Your task to perform on an android device: Add "razer blackwidow" to the cart on bestbuy Image 0: 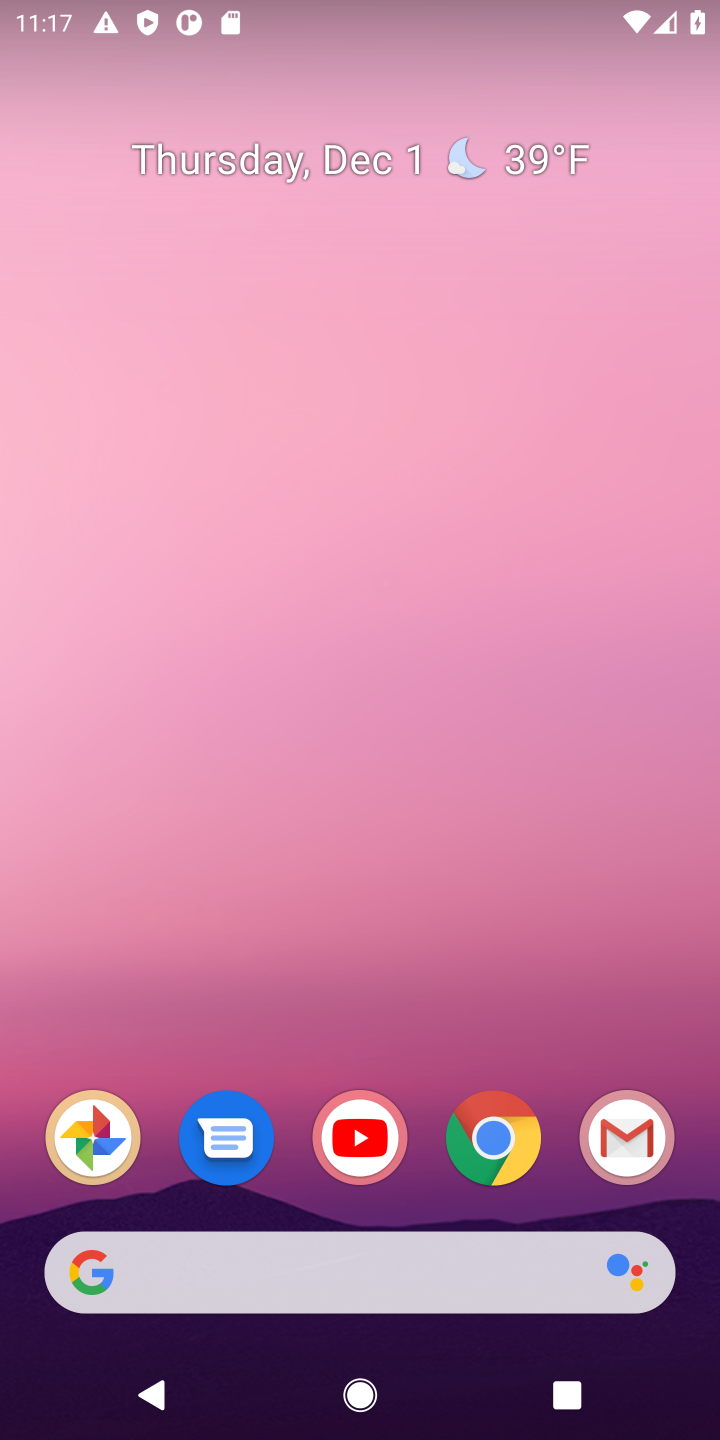
Step 0: drag from (326, 1116) to (436, 148)
Your task to perform on an android device: Add "razer blackwidow" to the cart on bestbuy Image 1: 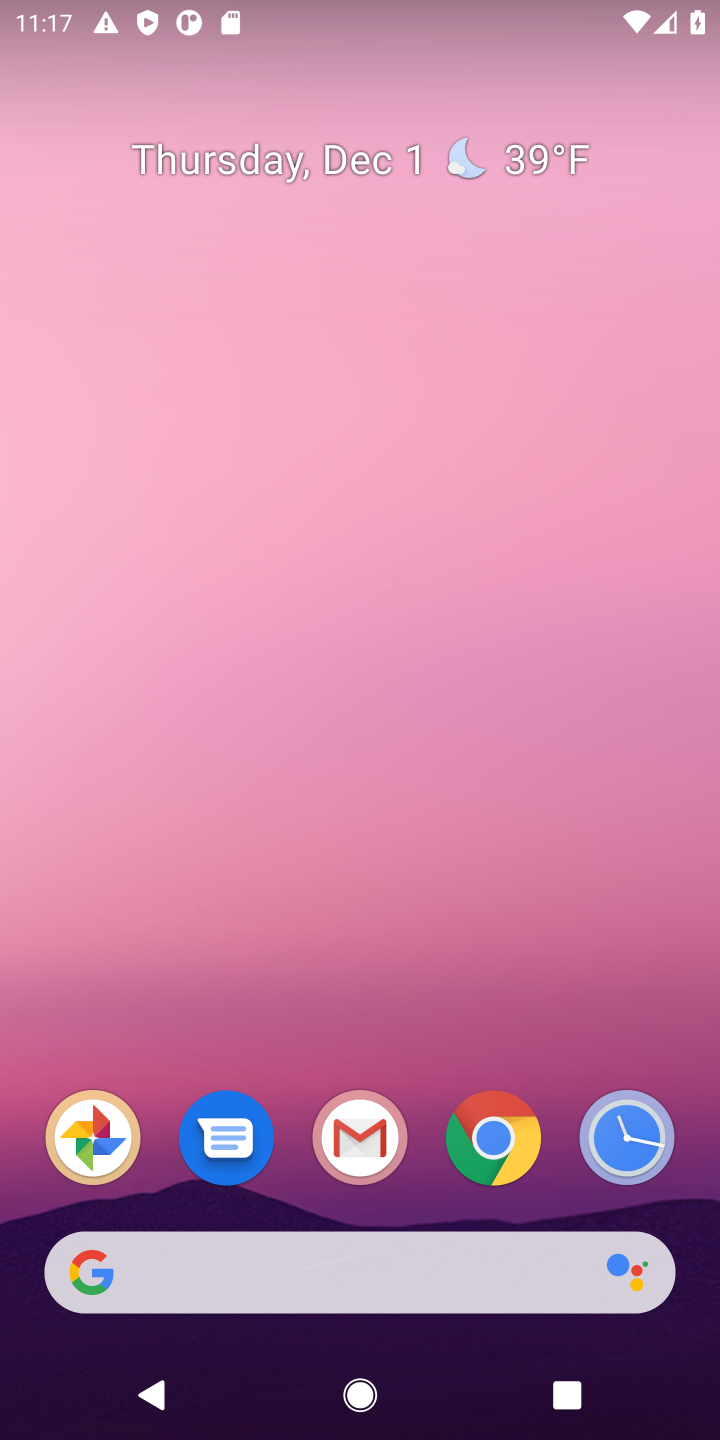
Step 1: drag from (402, 1053) to (466, 34)
Your task to perform on an android device: Add "razer blackwidow" to the cart on bestbuy Image 2: 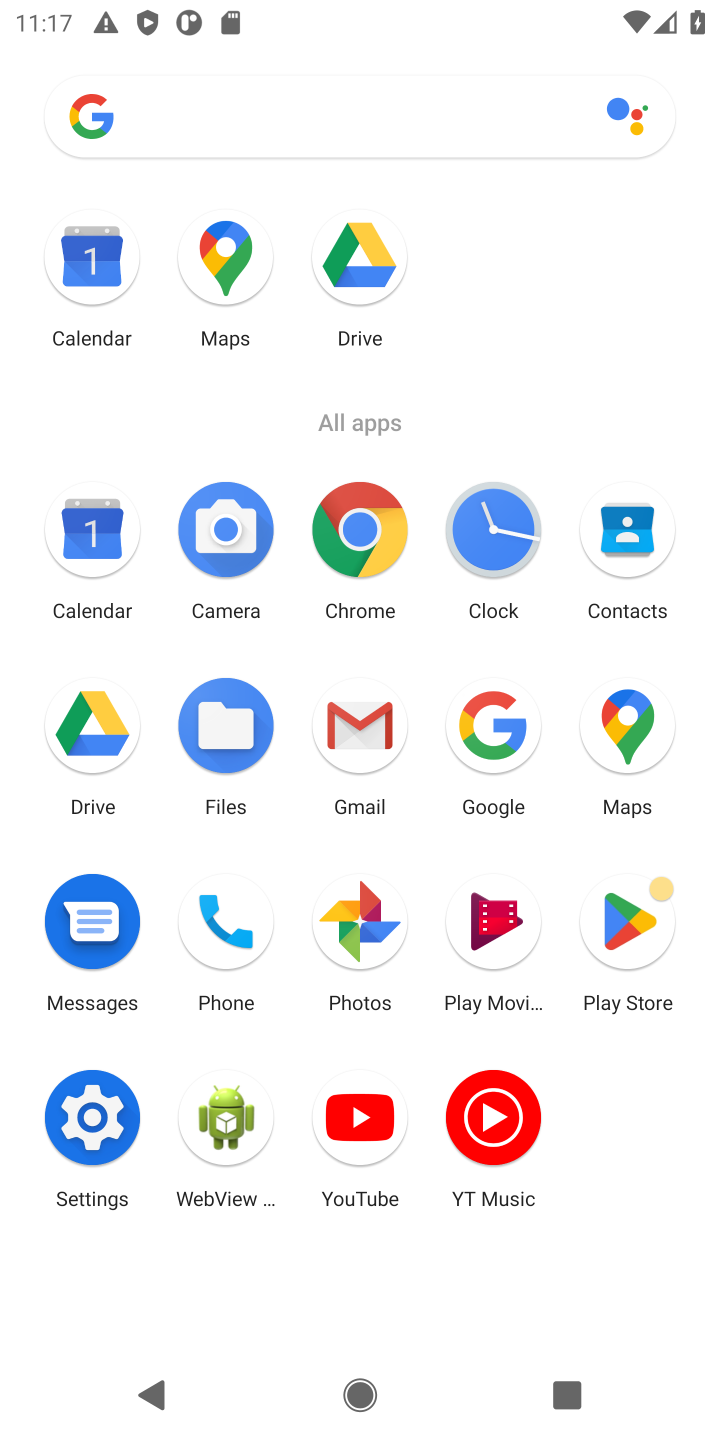
Step 2: click (516, 729)
Your task to perform on an android device: Add "razer blackwidow" to the cart on bestbuy Image 3: 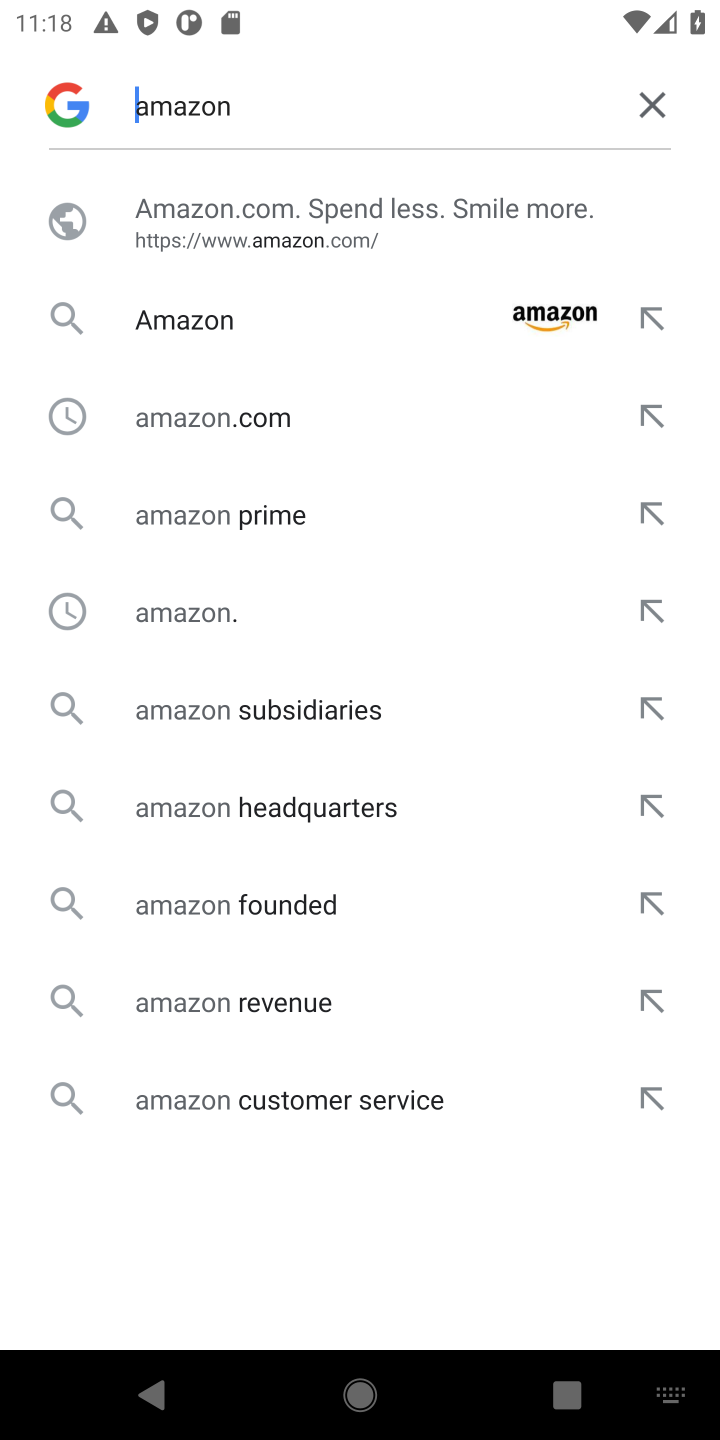
Step 3: click (654, 98)
Your task to perform on an android device: Add "razer blackwidow" to the cart on bestbuy Image 4: 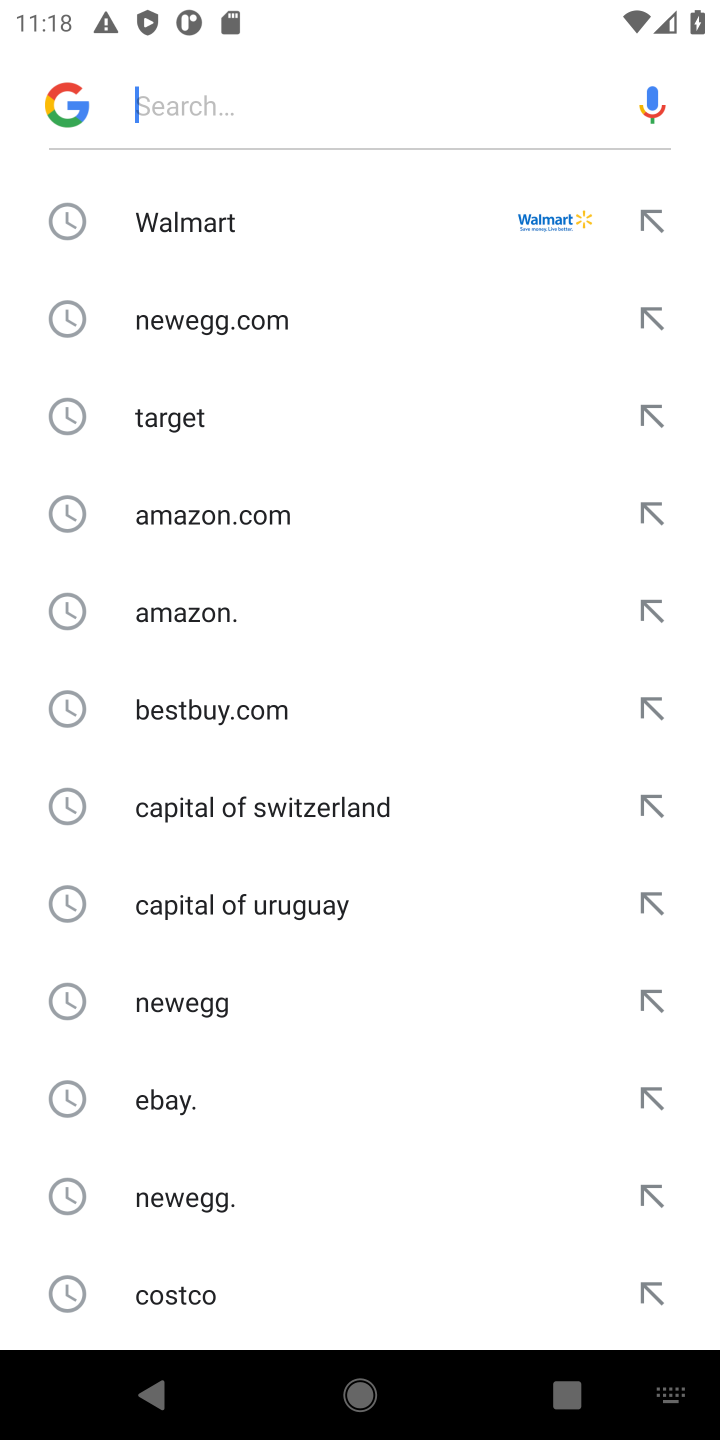
Step 4: type "razer blackwidow"
Your task to perform on an android device: Add "razer blackwidow" to the cart on bestbuy Image 5: 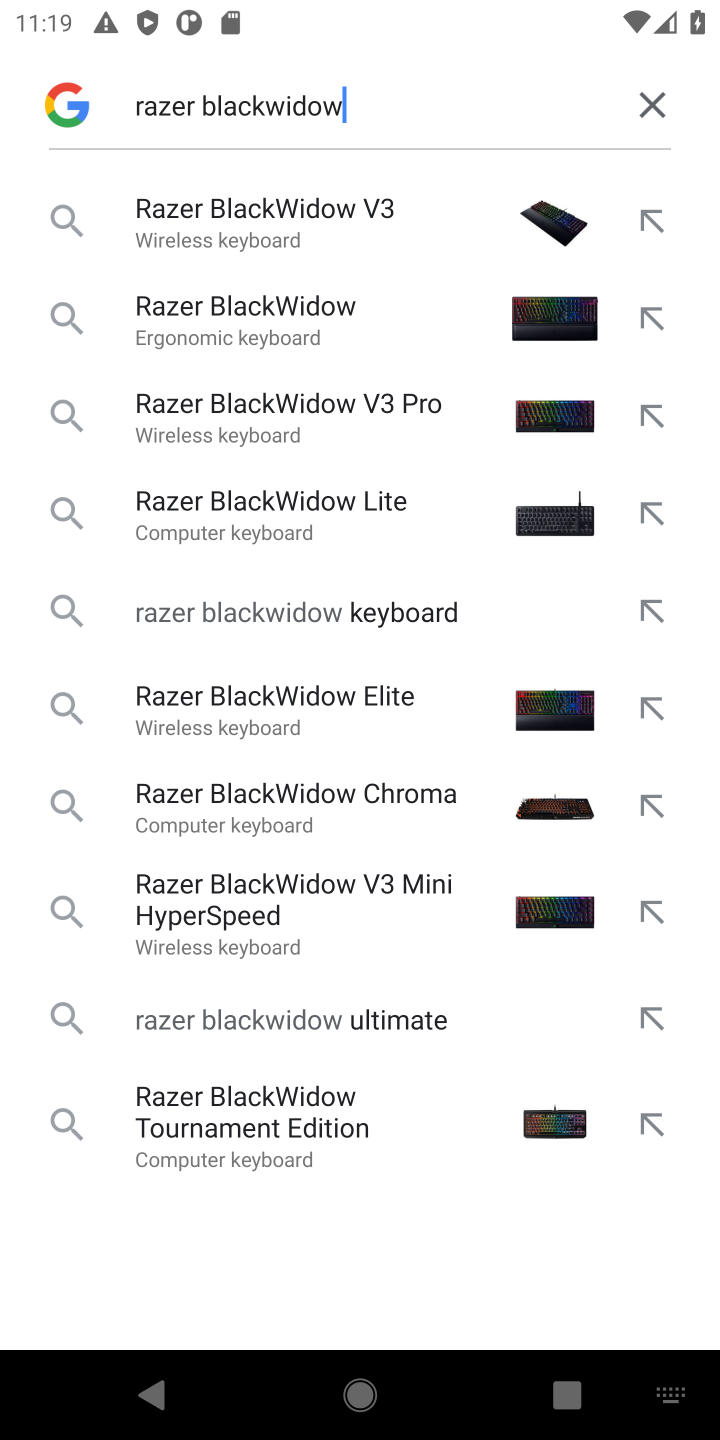
Step 5: click (650, 103)
Your task to perform on an android device: Add "razer blackwidow" to the cart on bestbuy Image 6: 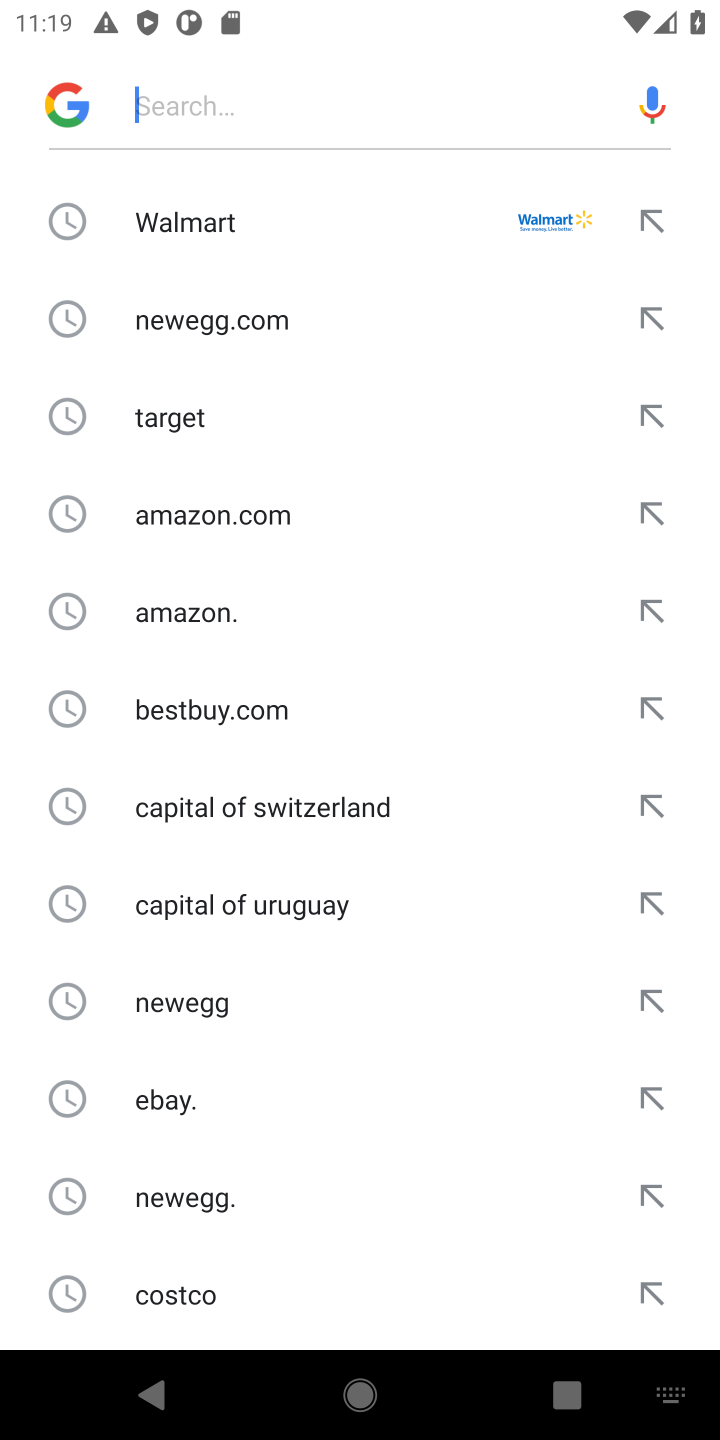
Step 6: type "bestbuy"
Your task to perform on an android device: Add "razer blackwidow" to the cart on bestbuy Image 7: 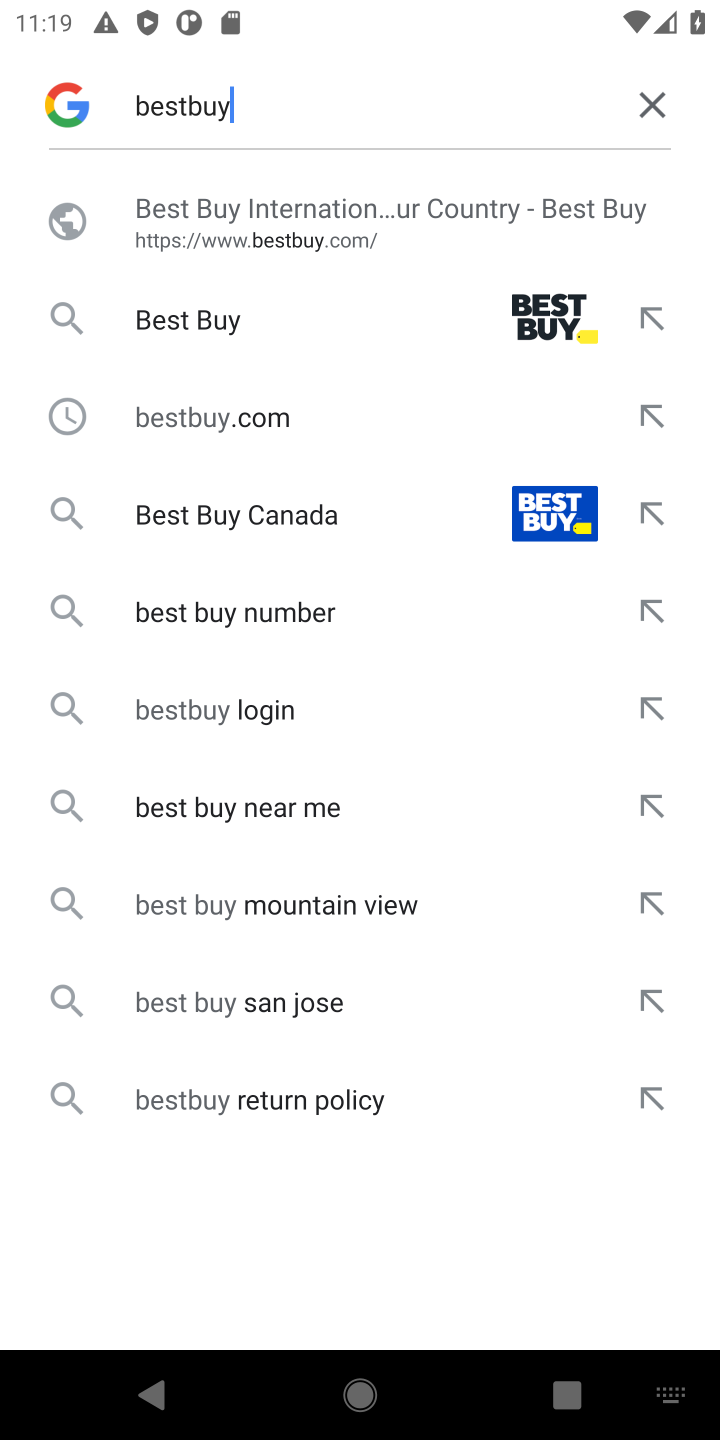
Step 7: click (359, 215)
Your task to perform on an android device: Add "razer blackwidow" to the cart on bestbuy Image 8: 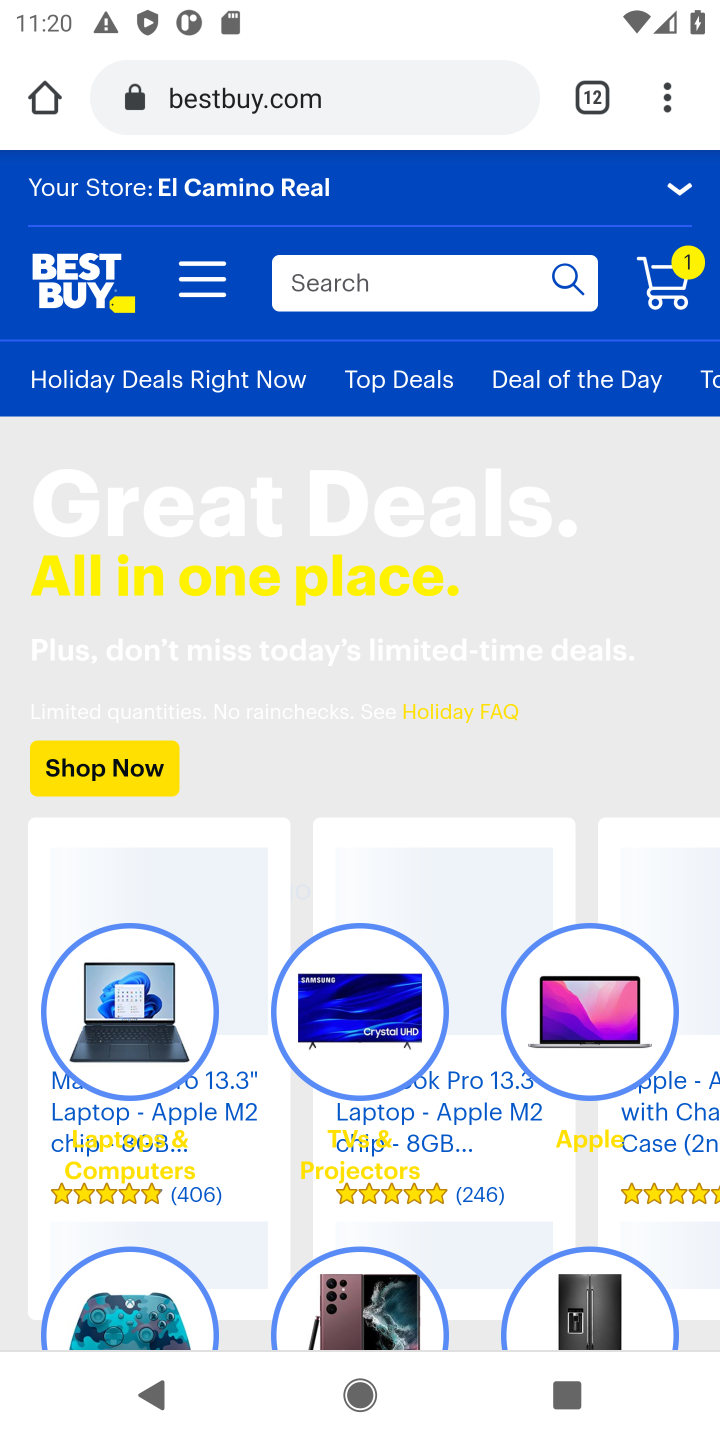
Step 8: click (485, 289)
Your task to perform on an android device: Add "razer blackwidow" to the cart on bestbuy Image 9: 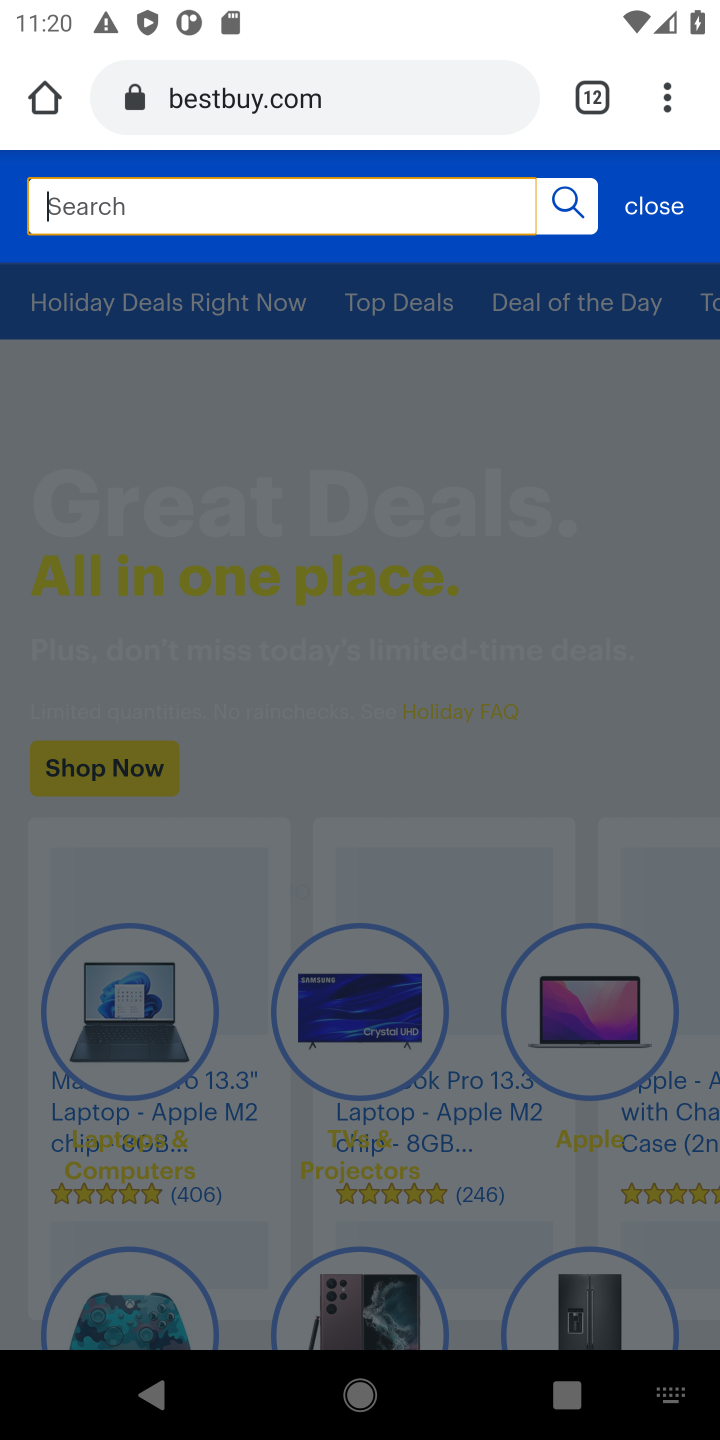
Step 9: type "razer blackwidow"
Your task to perform on an android device: Add "razer blackwidow" to the cart on bestbuy Image 10: 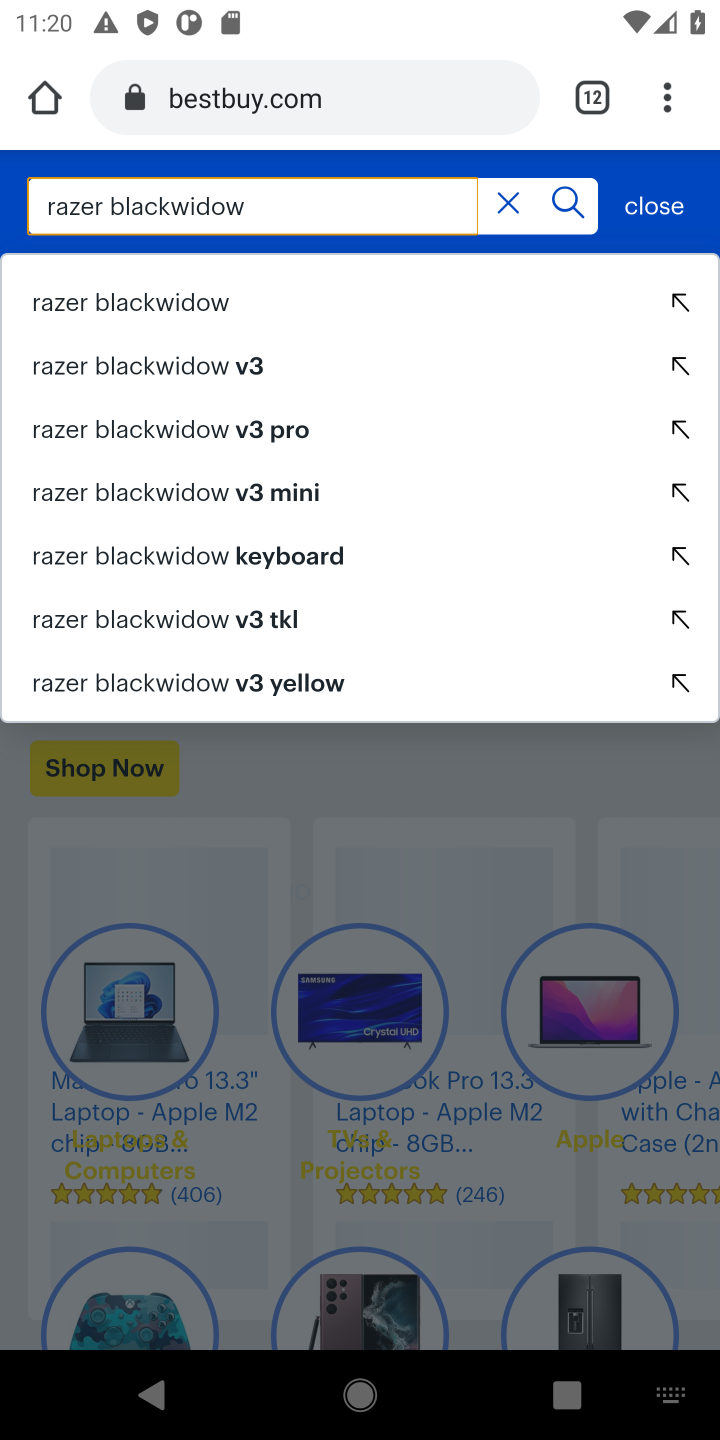
Step 10: click (214, 308)
Your task to perform on an android device: Add "razer blackwidow" to the cart on bestbuy Image 11: 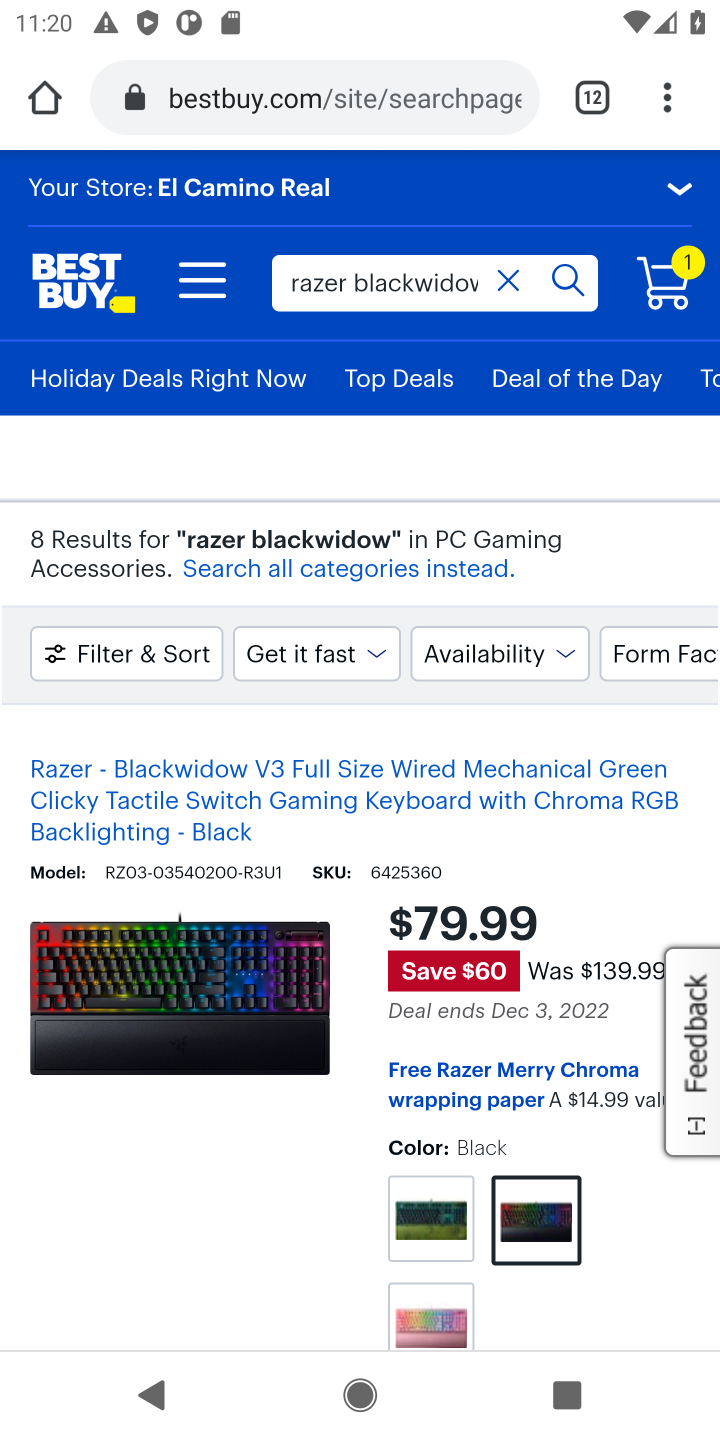
Step 11: click (269, 804)
Your task to perform on an android device: Add "razer blackwidow" to the cart on bestbuy Image 12: 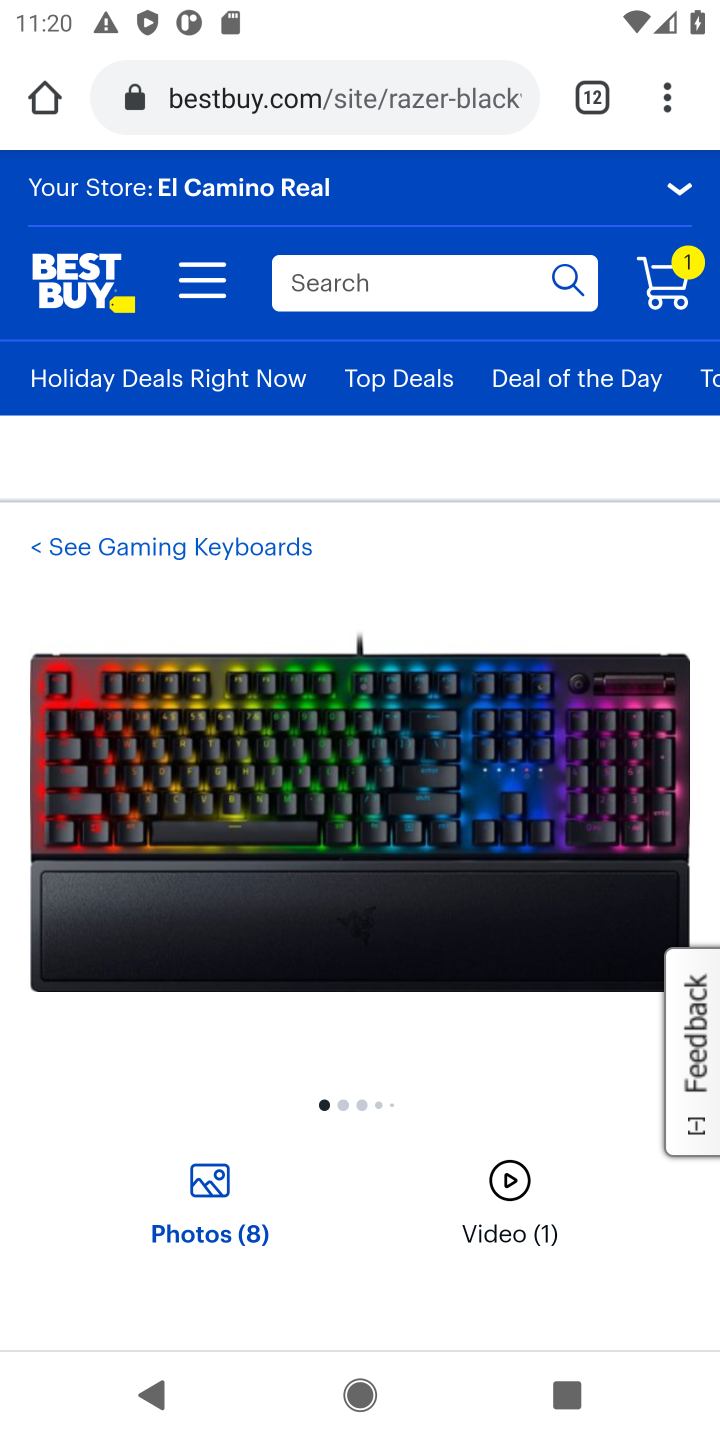
Step 12: drag from (452, 1040) to (506, 432)
Your task to perform on an android device: Add "razer blackwidow" to the cart on bestbuy Image 13: 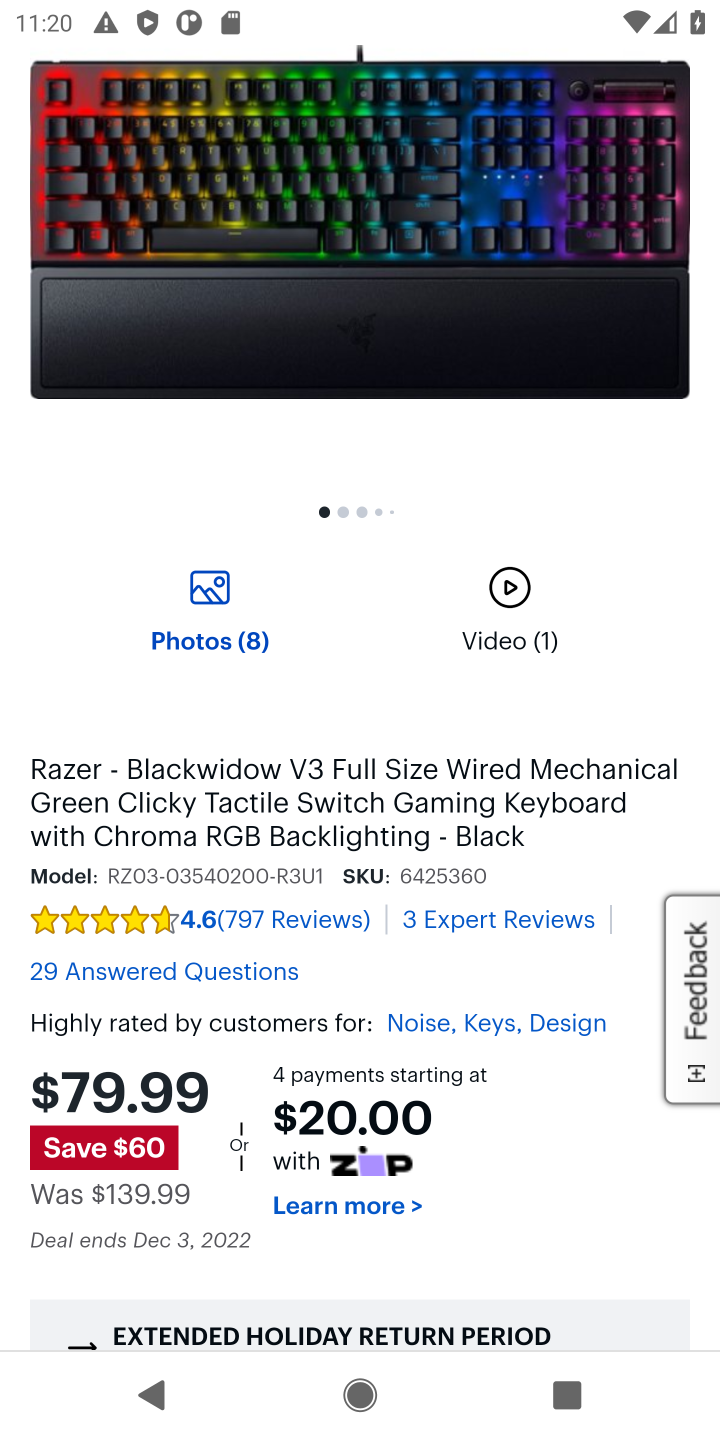
Step 13: drag from (464, 949) to (464, 461)
Your task to perform on an android device: Add "razer blackwidow" to the cart on bestbuy Image 14: 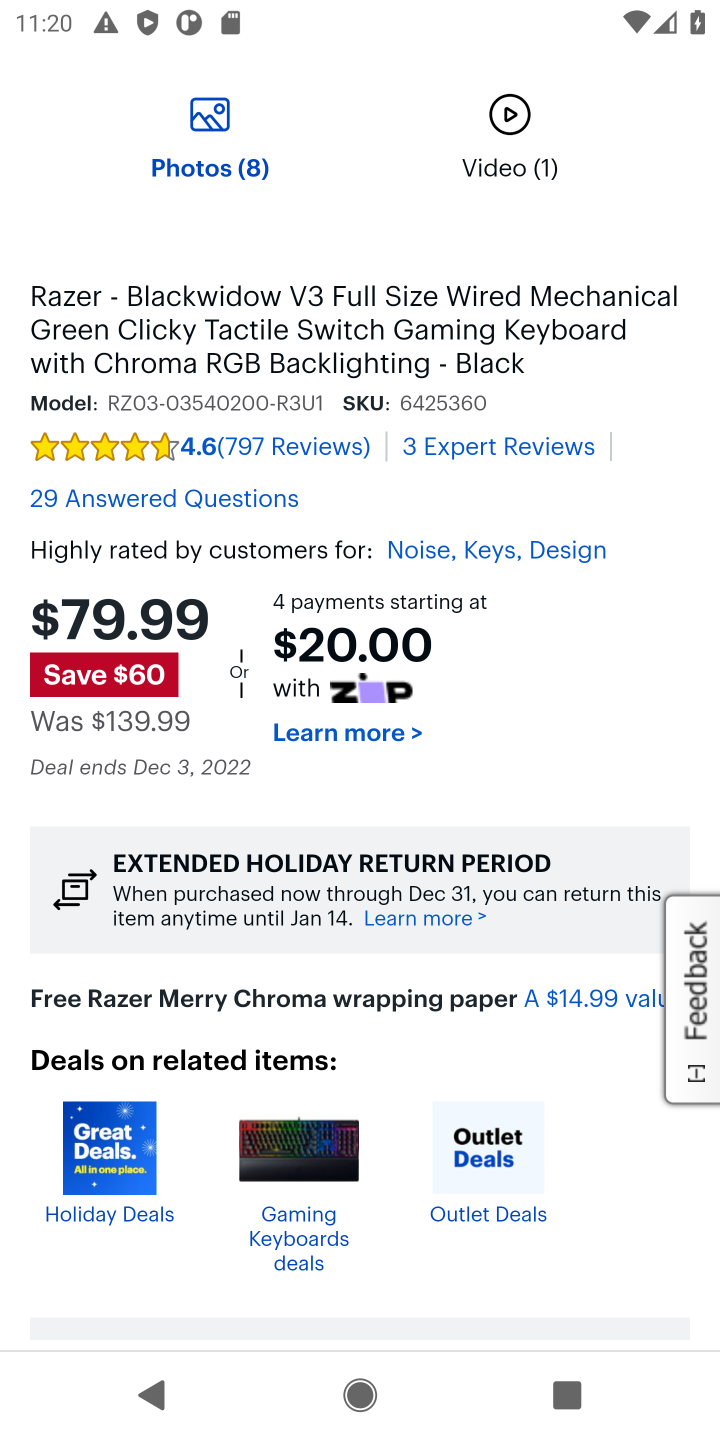
Step 14: drag from (457, 696) to (475, 473)
Your task to perform on an android device: Add "razer blackwidow" to the cart on bestbuy Image 15: 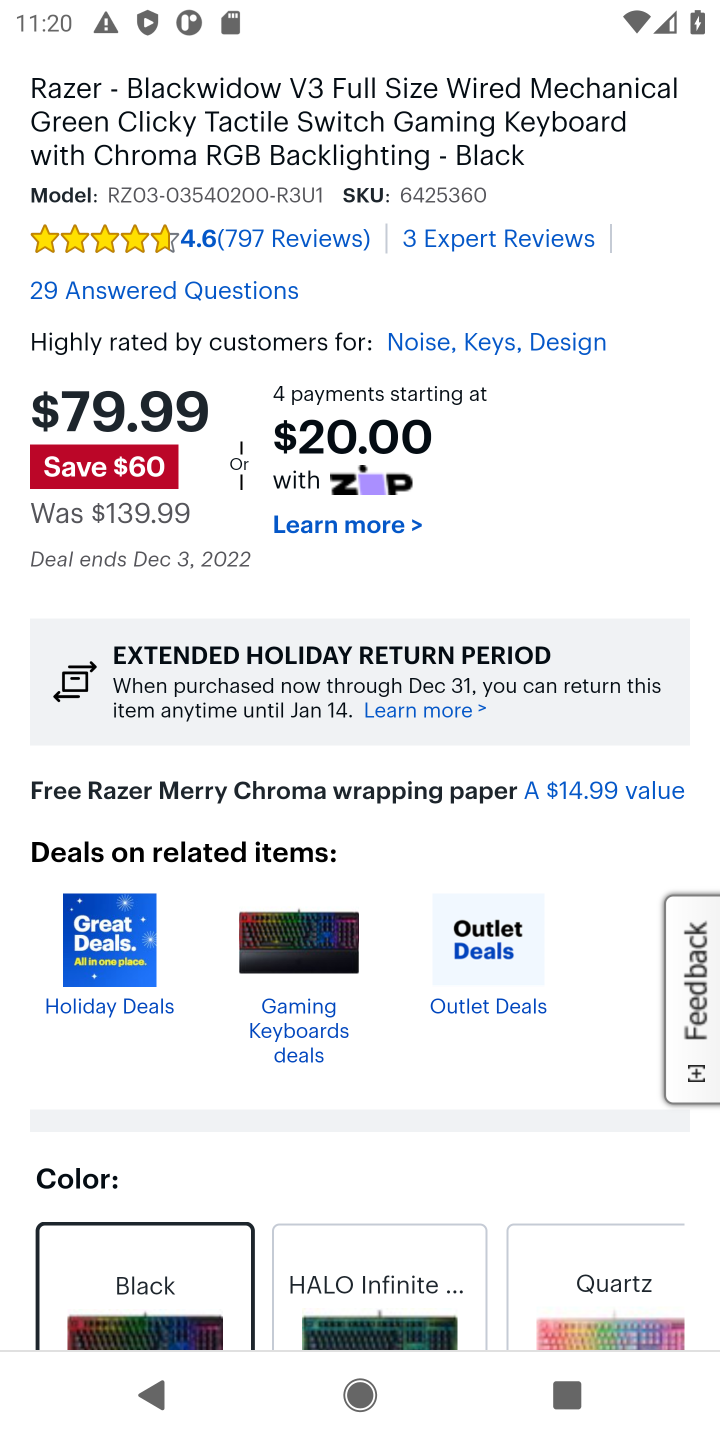
Step 15: drag from (475, 833) to (477, 298)
Your task to perform on an android device: Add "razer blackwidow" to the cart on bestbuy Image 16: 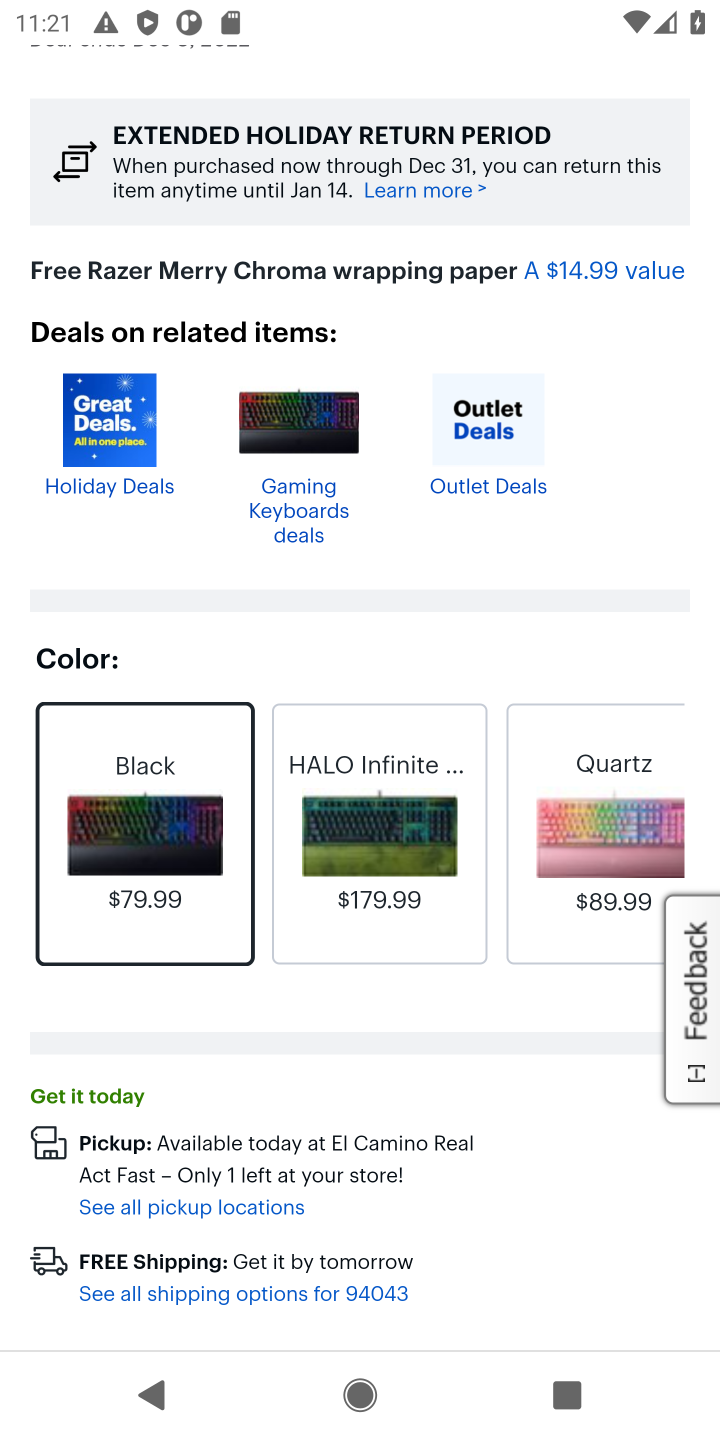
Step 16: drag from (394, 1151) to (452, 330)
Your task to perform on an android device: Add "razer blackwidow" to the cart on bestbuy Image 17: 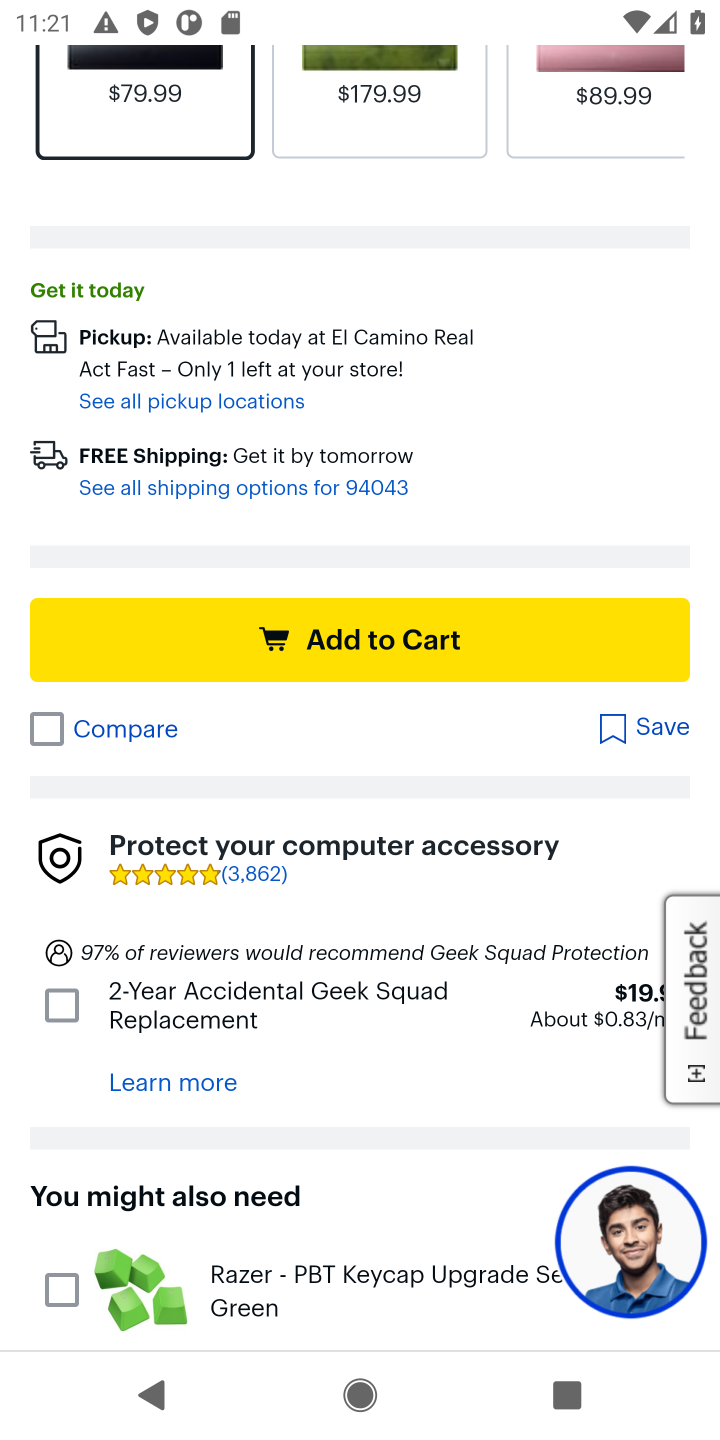
Step 17: click (436, 652)
Your task to perform on an android device: Add "razer blackwidow" to the cart on bestbuy Image 18: 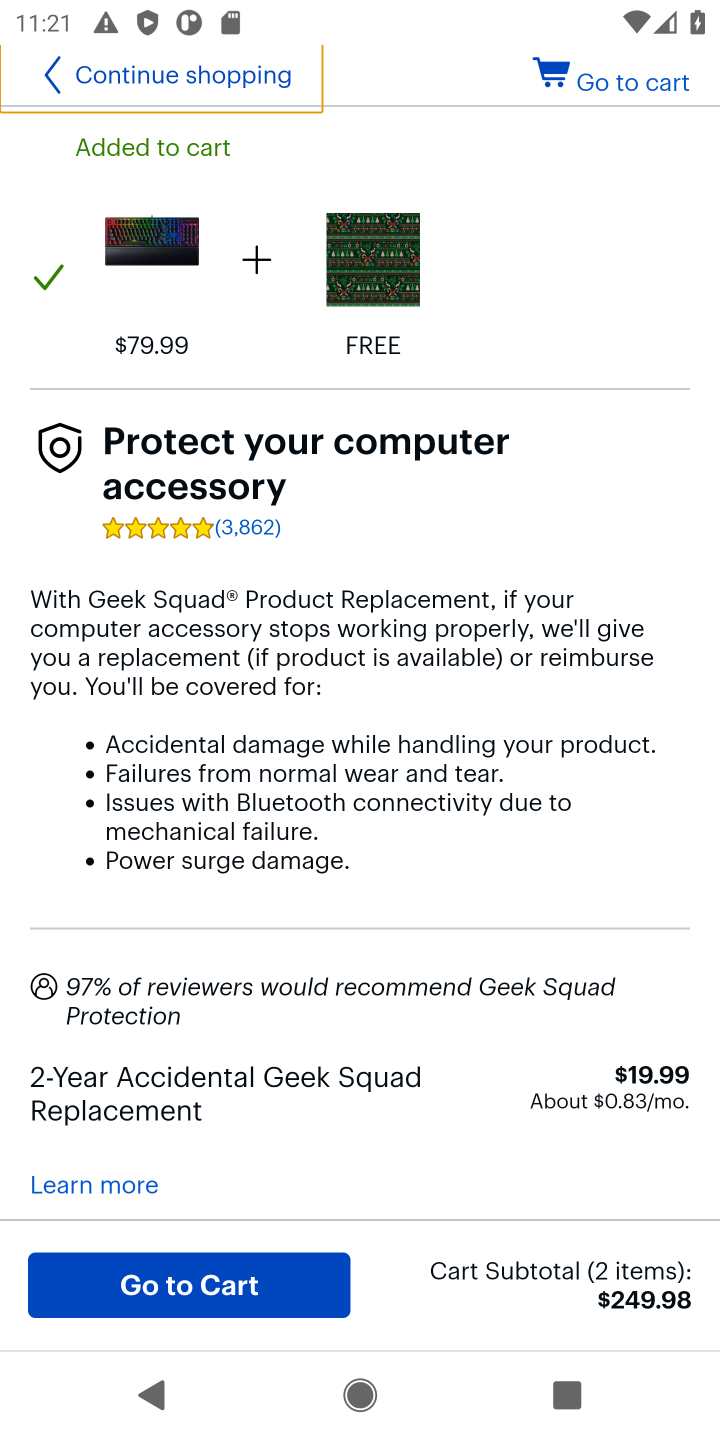
Step 18: task complete